Your task to perform on an android device: open sync settings in chrome Image 0: 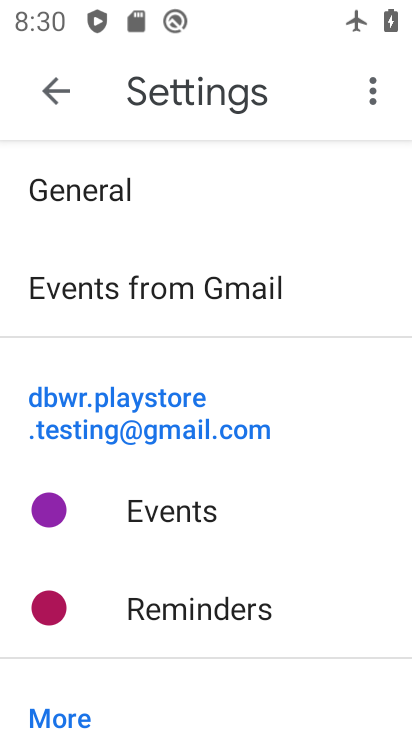
Step 0: press back button
Your task to perform on an android device: open sync settings in chrome Image 1: 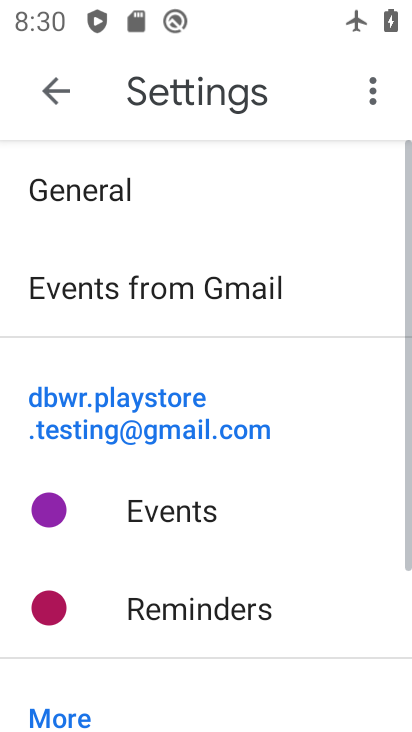
Step 1: press back button
Your task to perform on an android device: open sync settings in chrome Image 2: 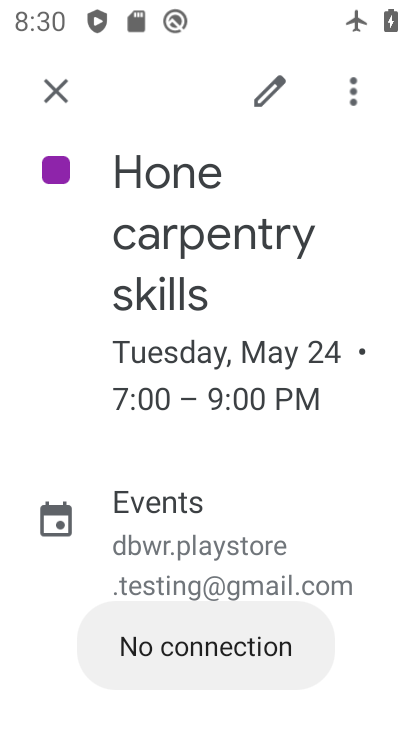
Step 2: press back button
Your task to perform on an android device: open sync settings in chrome Image 3: 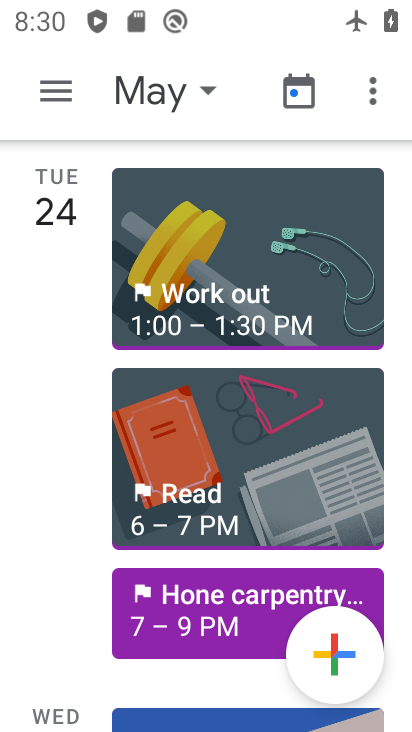
Step 3: press back button
Your task to perform on an android device: open sync settings in chrome Image 4: 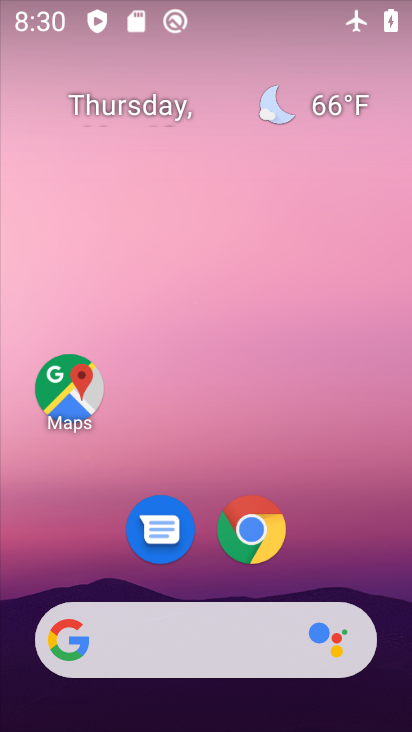
Step 4: click (254, 529)
Your task to perform on an android device: open sync settings in chrome Image 5: 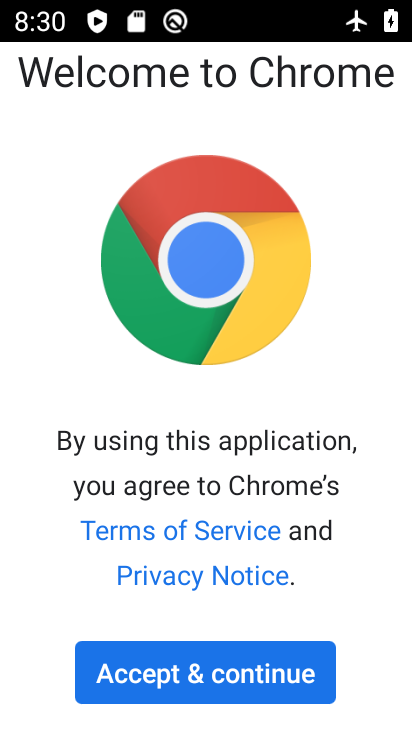
Step 5: click (192, 667)
Your task to perform on an android device: open sync settings in chrome Image 6: 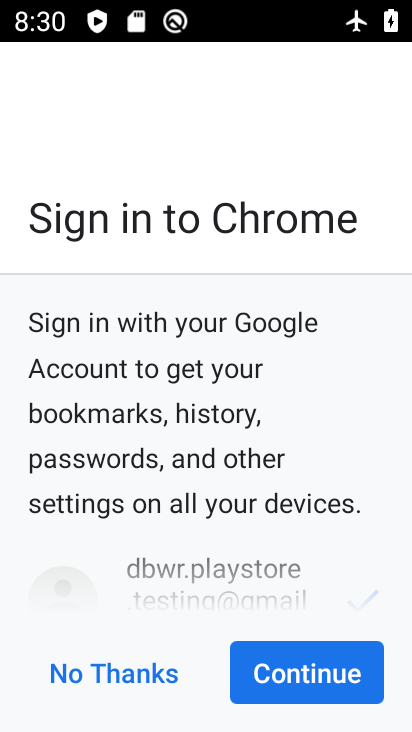
Step 6: click (303, 684)
Your task to perform on an android device: open sync settings in chrome Image 7: 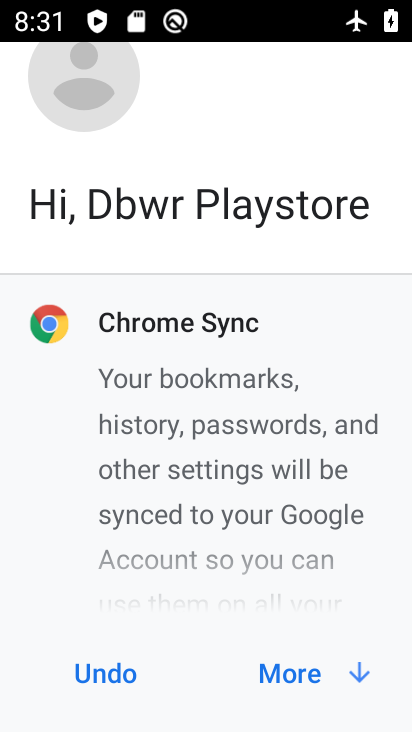
Step 7: click (293, 677)
Your task to perform on an android device: open sync settings in chrome Image 8: 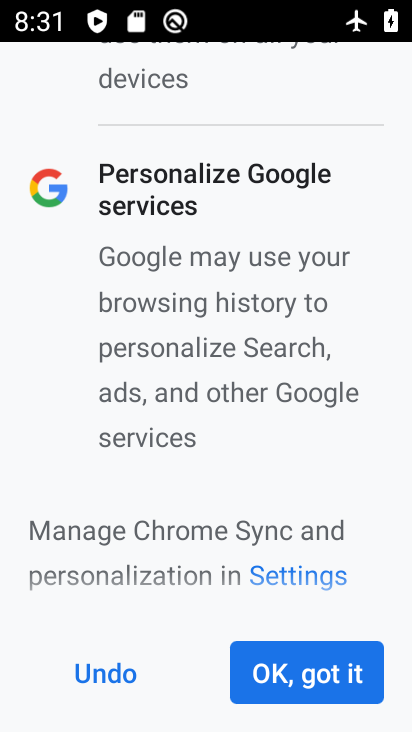
Step 8: click (293, 677)
Your task to perform on an android device: open sync settings in chrome Image 9: 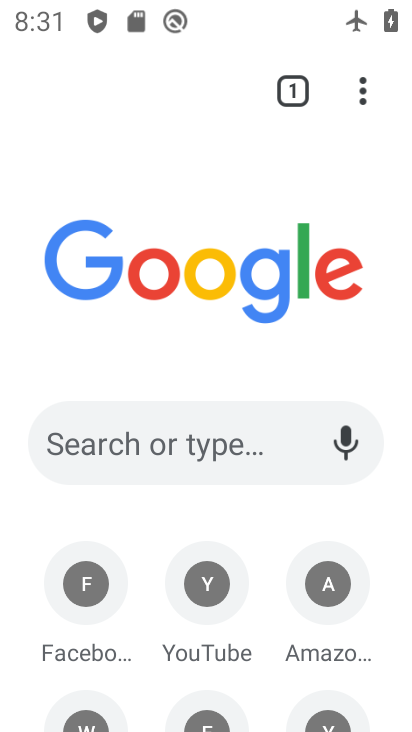
Step 9: click (360, 94)
Your task to perform on an android device: open sync settings in chrome Image 10: 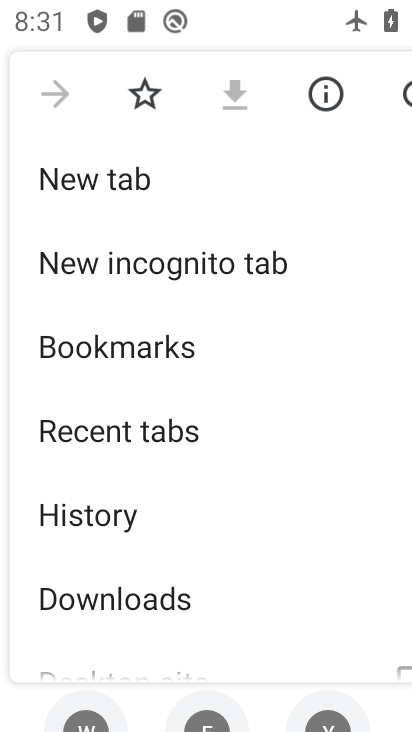
Step 10: drag from (139, 539) to (167, 434)
Your task to perform on an android device: open sync settings in chrome Image 11: 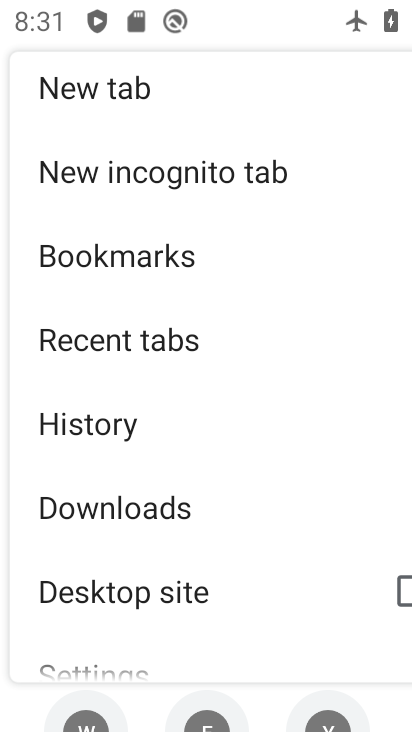
Step 11: drag from (112, 535) to (133, 437)
Your task to perform on an android device: open sync settings in chrome Image 12: 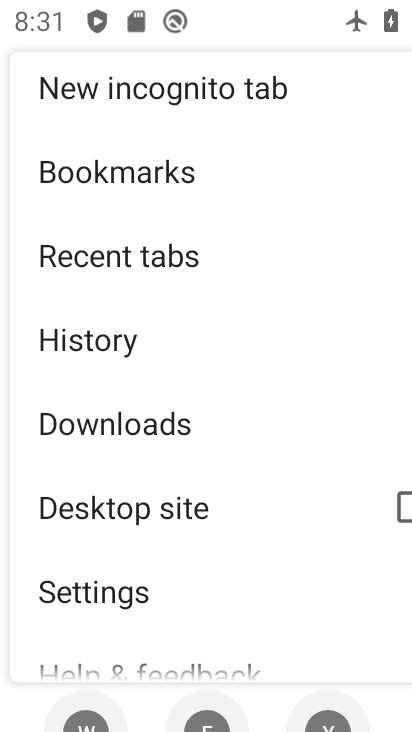
Step 12: drag from (104, 555) to (147, 438)
Your task to perform on an android device: open sync settings in chrome Image 13: 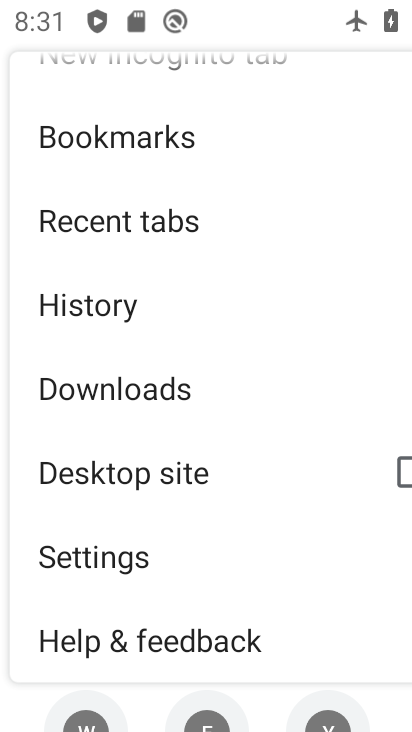
Step 13: click (90, 556)
Your task to perform on an android device: open sync settings in chrome Image 14: 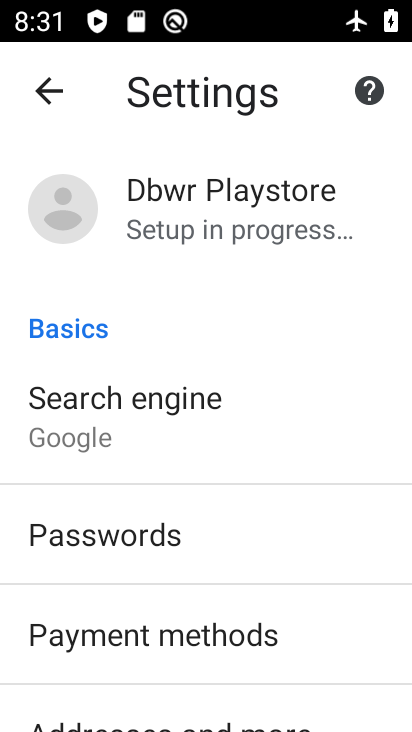
Step 14: drag from (129, 504) to (158, 430)
Your task to perform on an android device: open sync settings in chrome Image 15: 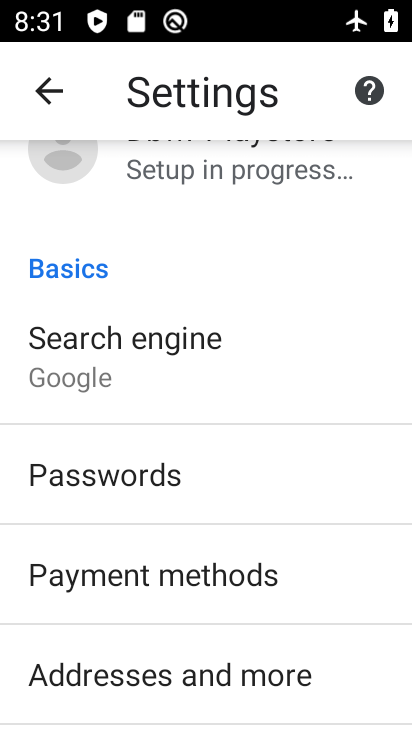
Step 15: drag from (113, 547) to (142, 471)
Your task to perform on an android device: open sync settings in chrome Image 16: 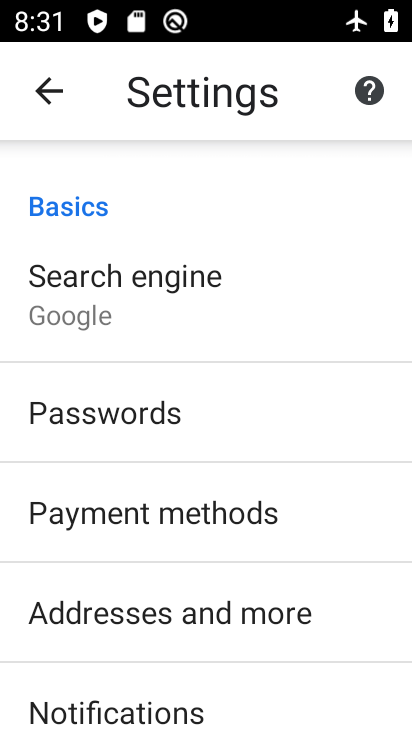
Step 16: drag from (117, 627) to (152, 487)
Your task to perform on an android device: open sync settings in chrome Image 17: 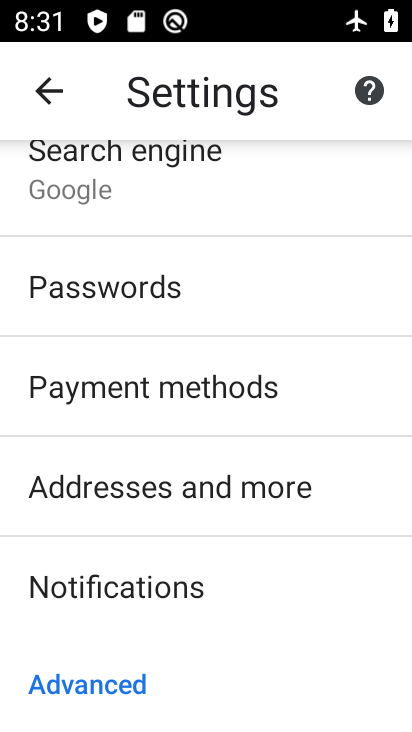
Step 17: drag from (124, 546) to (158, 475)
Your task to perform on an android device: open sync settings in chrome Image 18: 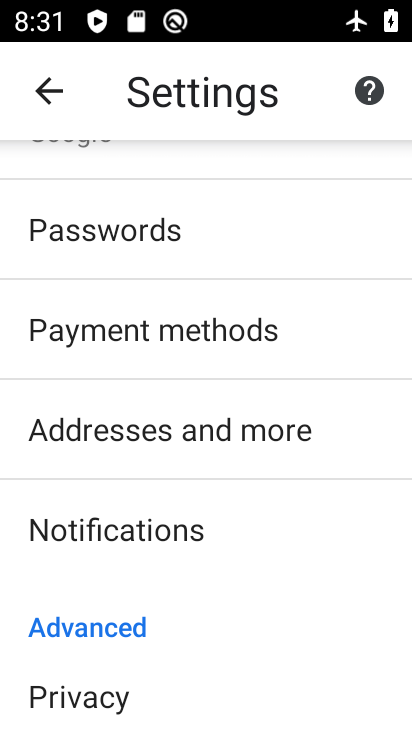
Step 18: drag from (131, 657) to (174, 543)
Your task to perform on an android device: open sync settings in chrome Image 19: 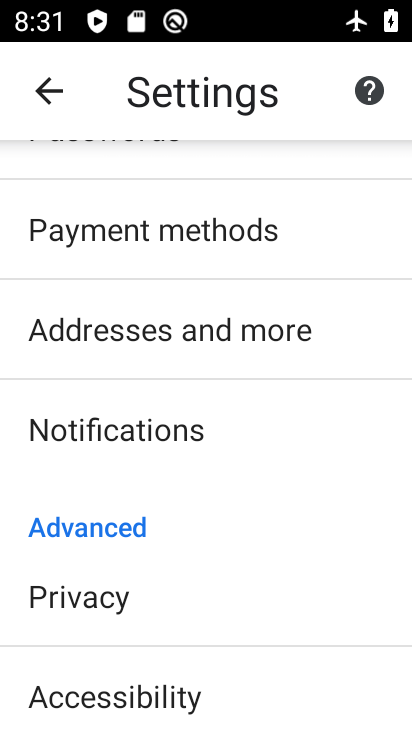
Step 19: drag from (131, 660) to (172, 538)
Your task to perform on an android device: open sync settings in chrome Image 20: 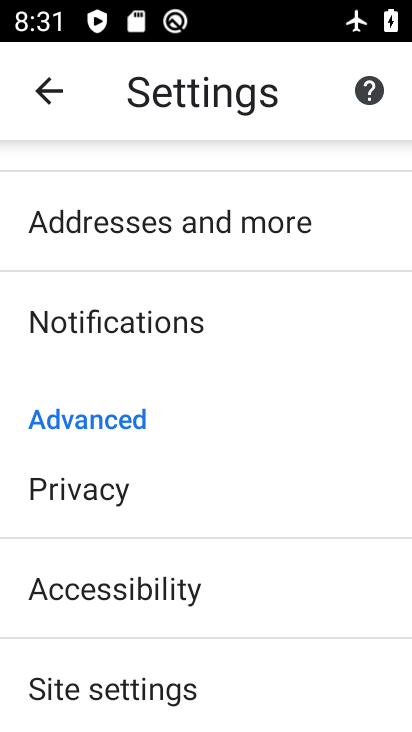
Step 20: drag from (99, 653) to (184, 525)
Your task to perform on an android device: open sync settings in chrome Image 21: 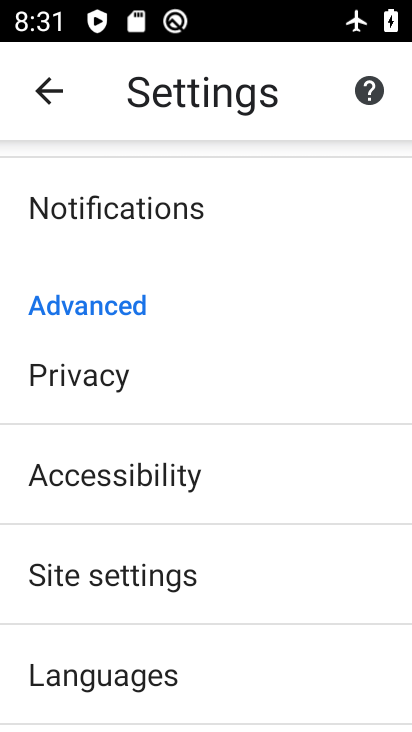
Step 21: click (124, 582)
Your task to perform on an android device: open sync settings in chrome Image 22: 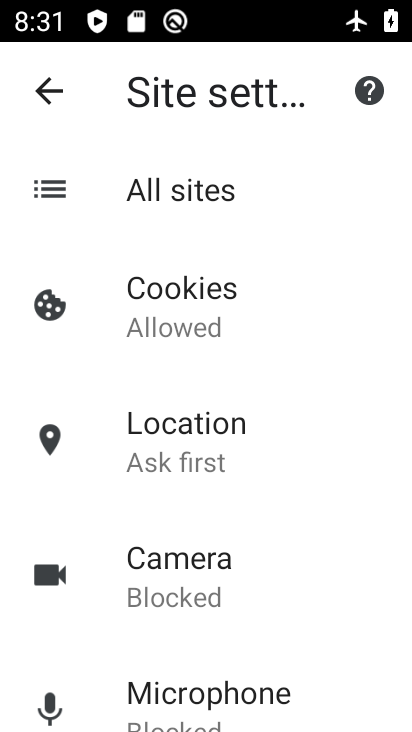
Step 22: drag from (114, 619) to (181, 506)
Your task to perform on an android device: open sync settings in chrome Image 23: 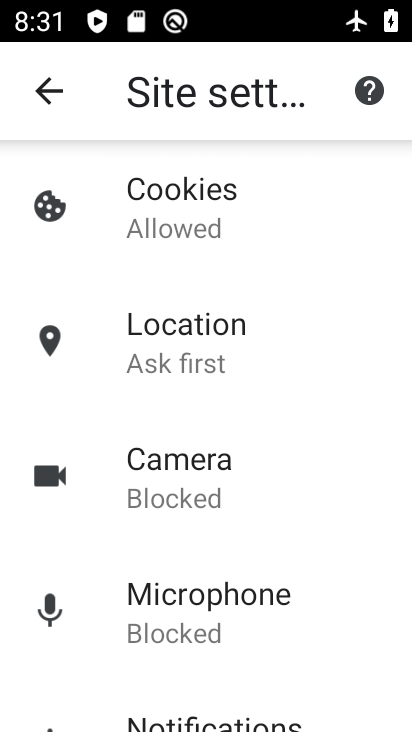
Step 23: drag from (200, 654) to (241, 543)
Your task to perform on an android device: open sync settings in chrome Image 24: 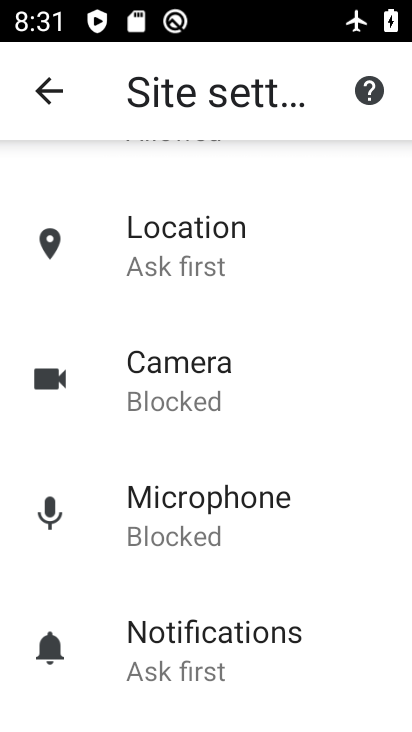
Step 24: drag from (161, 671) to (223, 560)
Your task to perform on an android device: open sync settings in chrome Image 25: 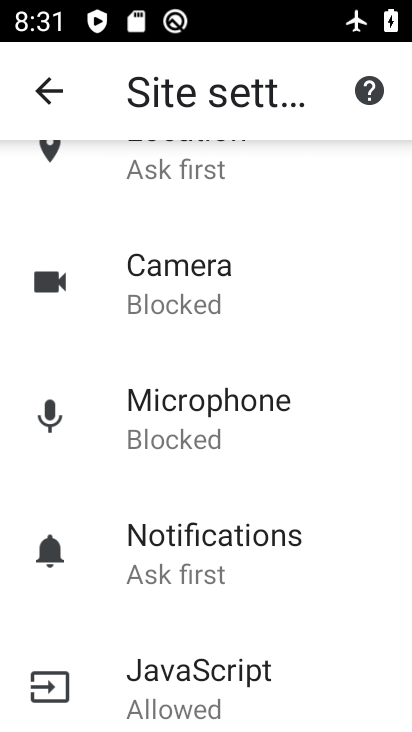
Step 25: drag from (171, 629) to (256, 482)
Your task to perform on an android device: open sync settings in chrome Image 26: 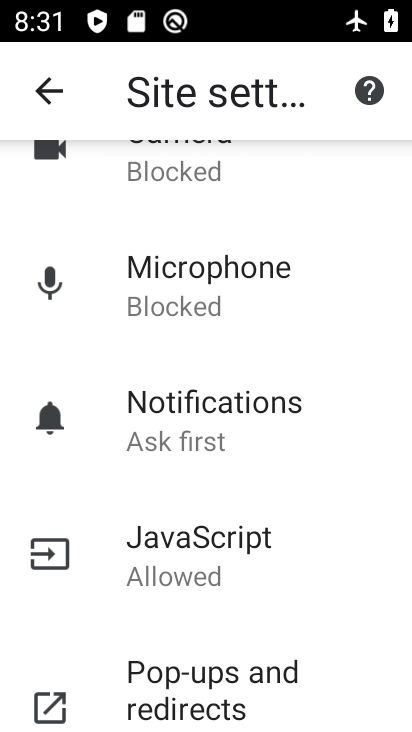
Step 26: drag from (159, 617) to (260, 477)
Your task to perform on an android device: open sync settings in chrome Image 27: 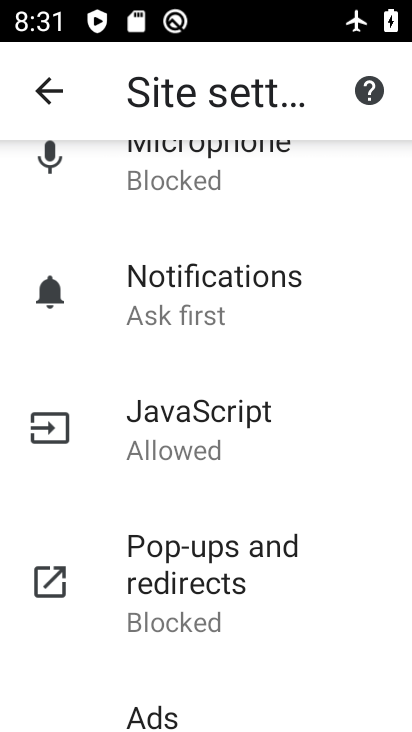
Step 27: drag from (144, 661) to (242, 479)
Your task to perform on an android device: open sync settings in chrome Image 28: 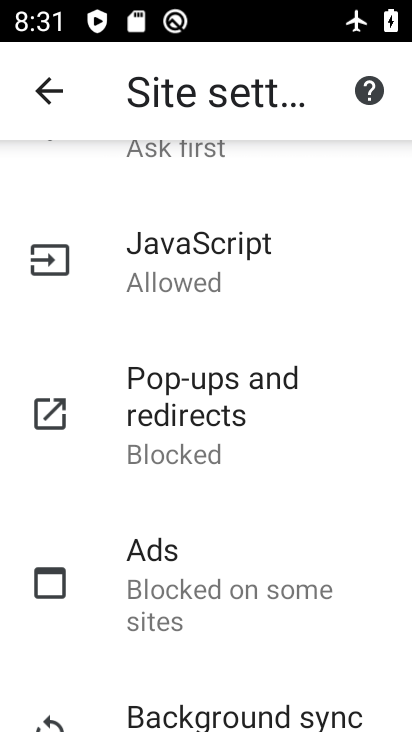
Step 28: drag from (145, 664) to (254, 487)
Your task to perform on an android device: open sync settings in chrome Image 29: 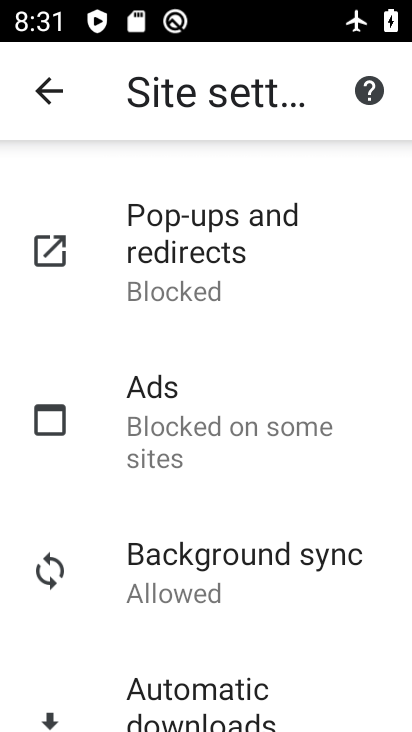
Step 29: click (223, 550)
Your task to perform on an android device: open sync settings in chrome Image 30: 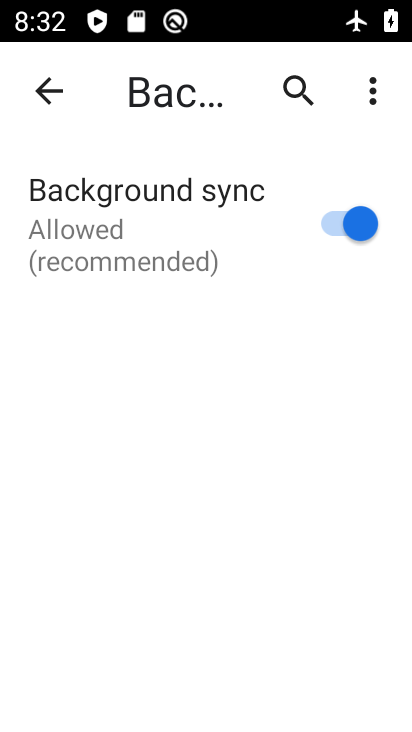
Step 30: task complete